Your task to perform on an android device: Open internet settings Image 0: 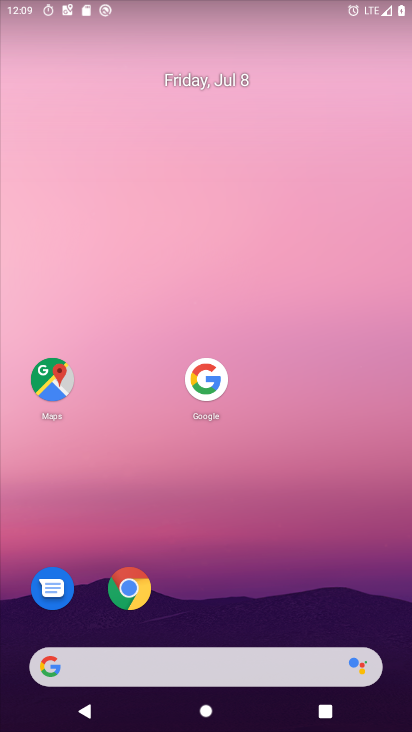
Step 0: drag from (194, 660) to (298, 155)
Your task to perform on an android device: Open internet settings Image 1: 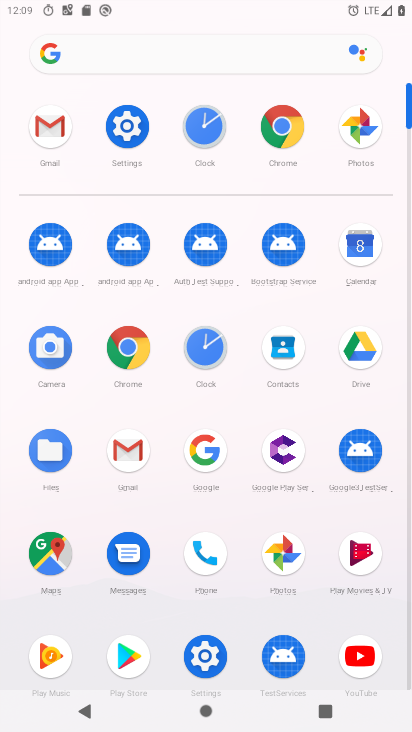
Step 1: click (125, 125)
Your task to perform on an android device: Open internet settings Image 2: 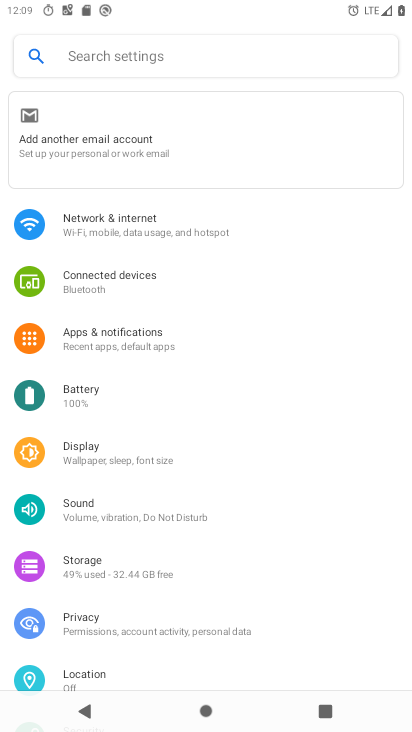
Step 2: click (119, 230)
Your task to perform on an android device: Open internet settings Image 3: 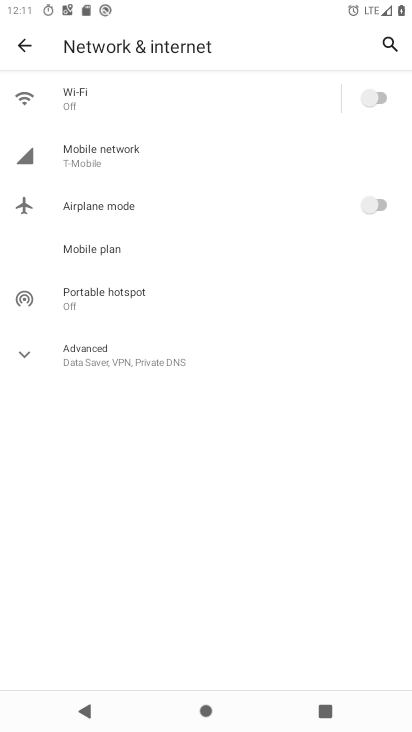
Step 3: task complete